Your task to perform on an android device: Open accessibility settings Image 0: 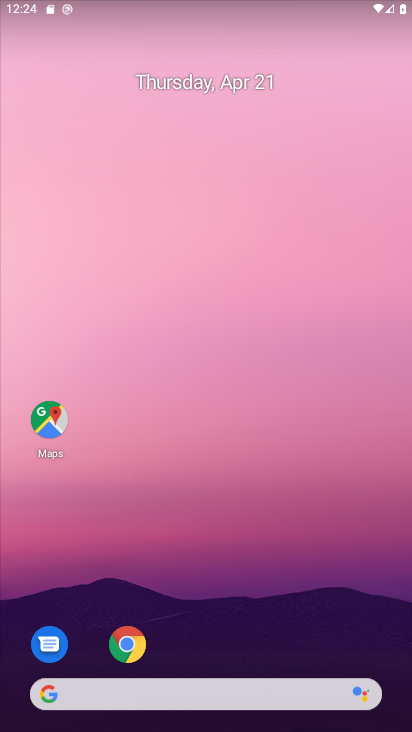
Step 0: drag from (304, 587) to (256, 186)
Your task to perform on an android device: Open accessibility settings Image 1: 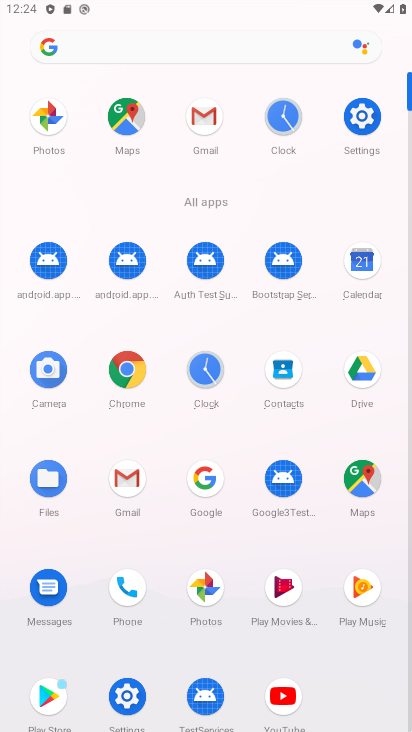
Step 1: click (118, 367)
Your task to perform on an android device: Open accessibility settings Image 2: 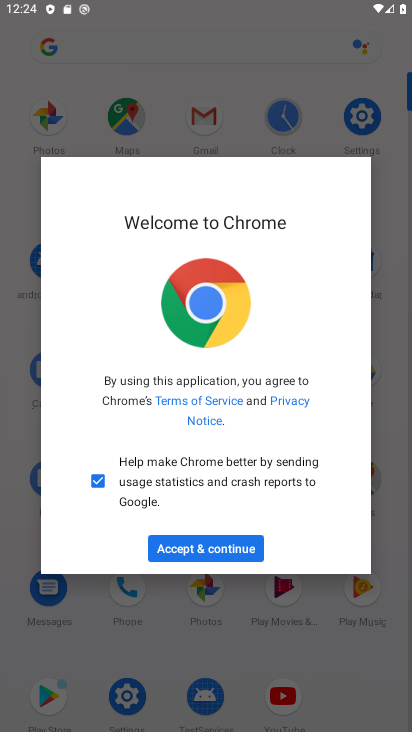
Step 2: click (203, 546)
Your task to perform on an android device: Open accessibility settings Image 3: 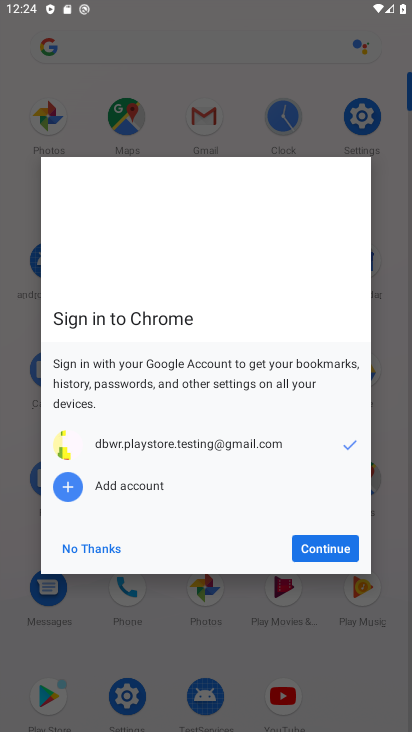
Step 3: click (321, 552)
Your task to perform on an android device: Open accessibility settings Image 4: 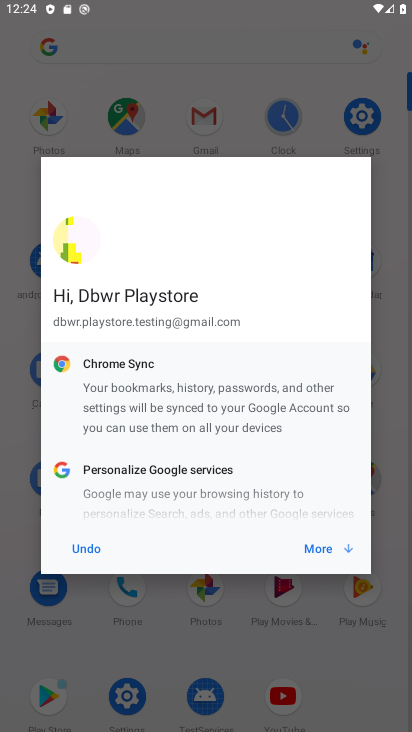
Step 4: click (321, 552)
Your task to perform on an android device: Open accessibility settings Image 5: 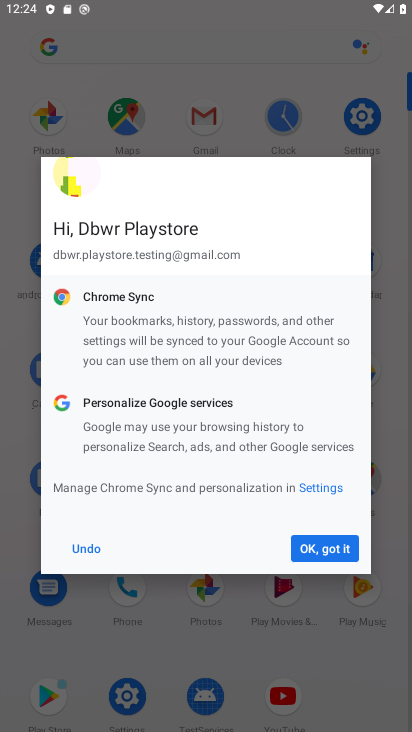
Step 5: click (321, 552)
Your task to perform on an android device: Open accessibility settings Image 6: 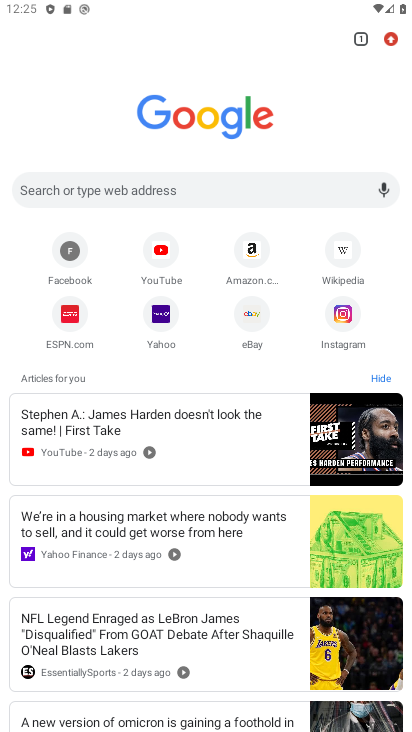
Step 6: click (392, 55)
Your task to perform on an android device: Open accessibility settings Image 7: 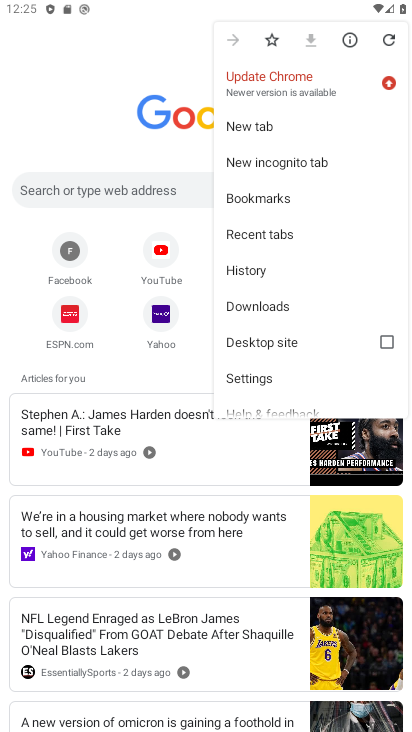
Step 7: click (312, 383)
Your task to perform on an android device: Open accessibility settings Image 8: 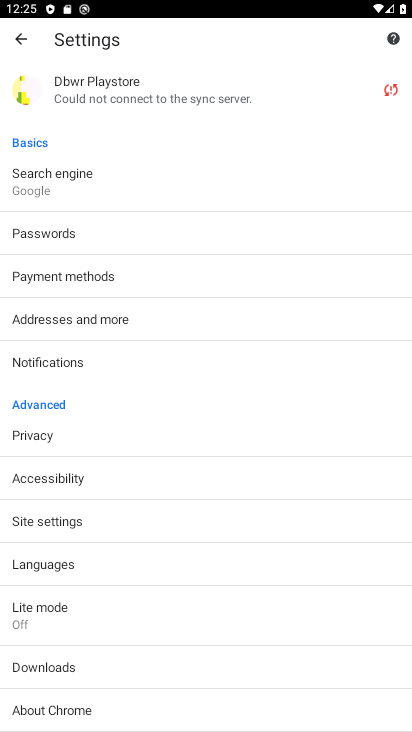
Step 8: click (195, 488)
Your task to perform on an android device: Open accessibility settings Image 9: 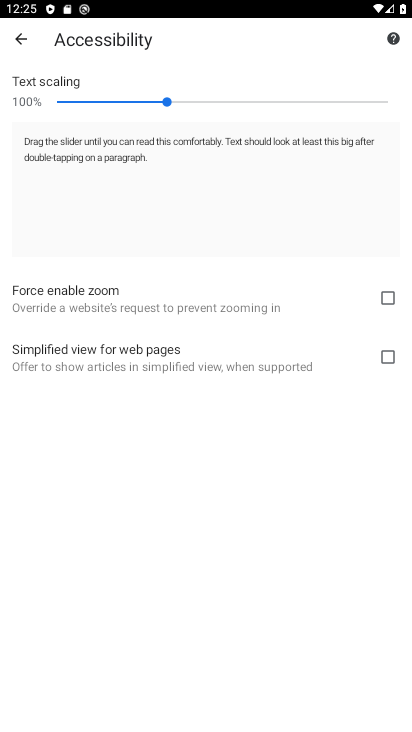
Step 9: task complete